Your task to perform on an android device: stop showing notifications on the lock screen Image 0: 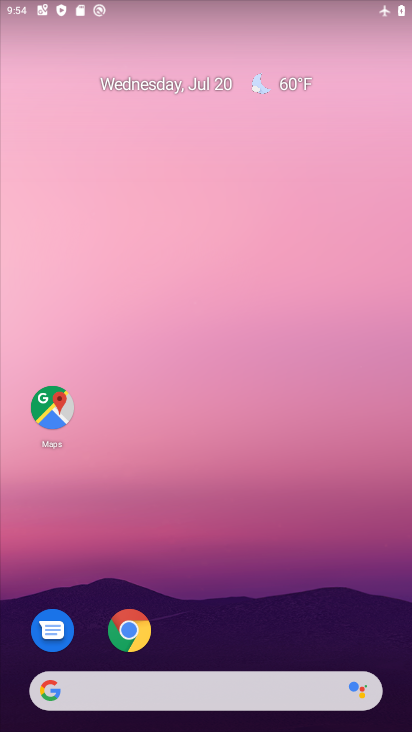
Step 0: drag from (187, 694) to (202, 27)
Your task to perform on an android device: stop showing notifications on the lock screen Image 1: 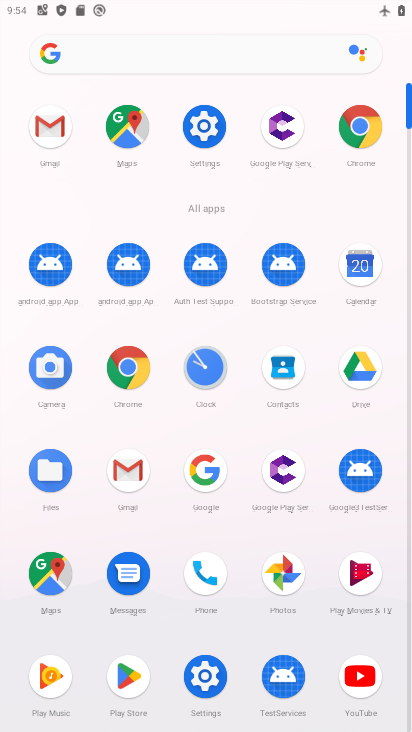
Step 1: click (188, 121)
Your task to perform on an android device: stop showing notifications on the lock screen Image 2: 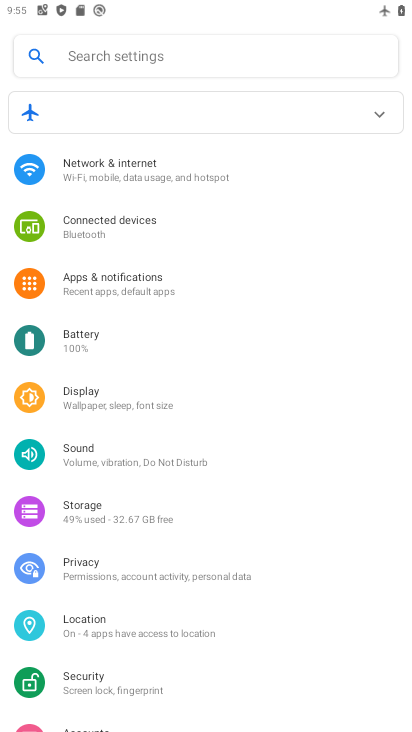
Step 2: click (76, 573)
Your task to perform on an android device: stop showing notifications on the lock screen Image 3: 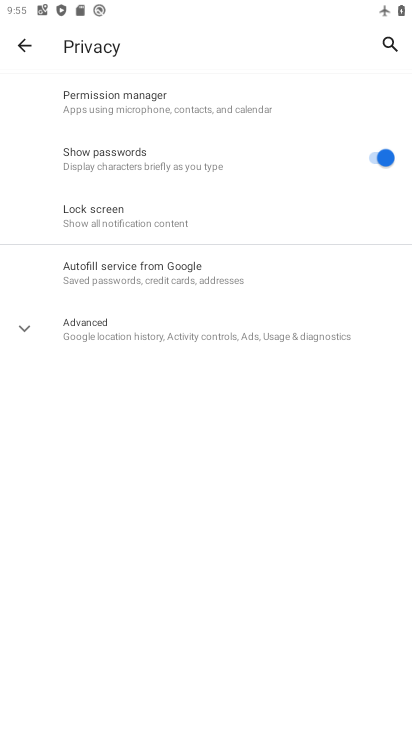
Step 3: click (106, 220)
Your task to perform on an android device: stop showing notifications on the lock screen Image 4: 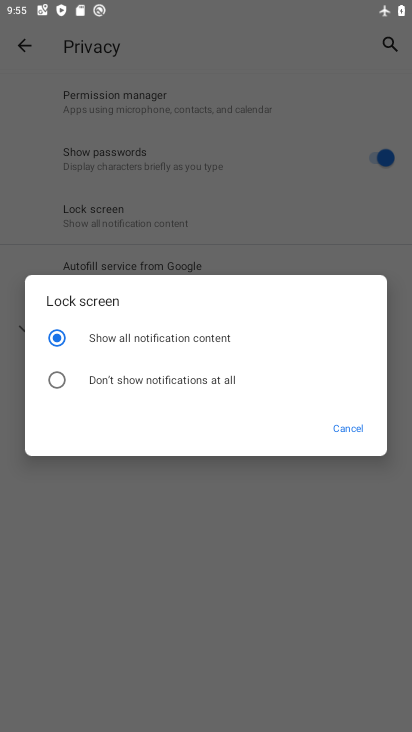
Step 4: click (103, 386)
Your task to perform on an android device: stop showing notifications on the lock screen Image 5: 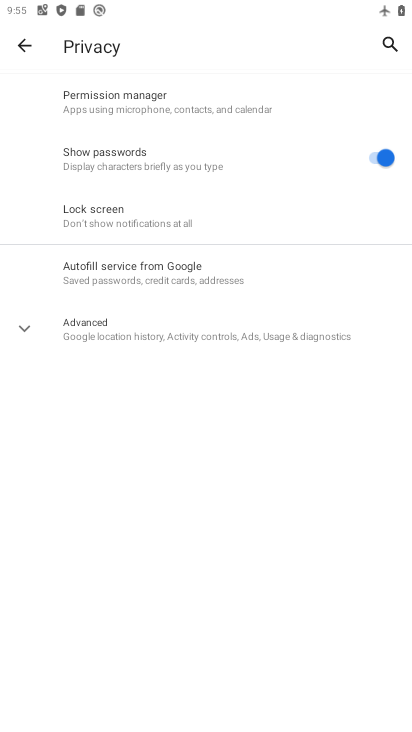
Step 5: task complete